Your task to perform on an android device: open app "Gmail" (install if not already installed) Image 0: 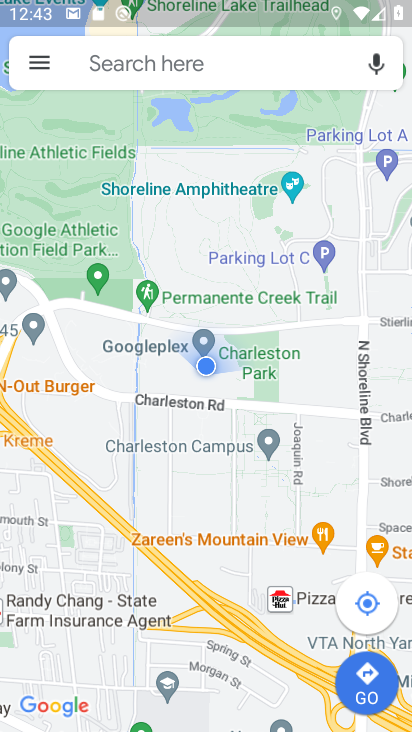
Step 0: task complete